Your task to perform on an android device: open app "Roku - Official Remote Control" (install if not already installed) and enter user name: "autumnal@gmail.com" and password: "stuffing" Image 0: 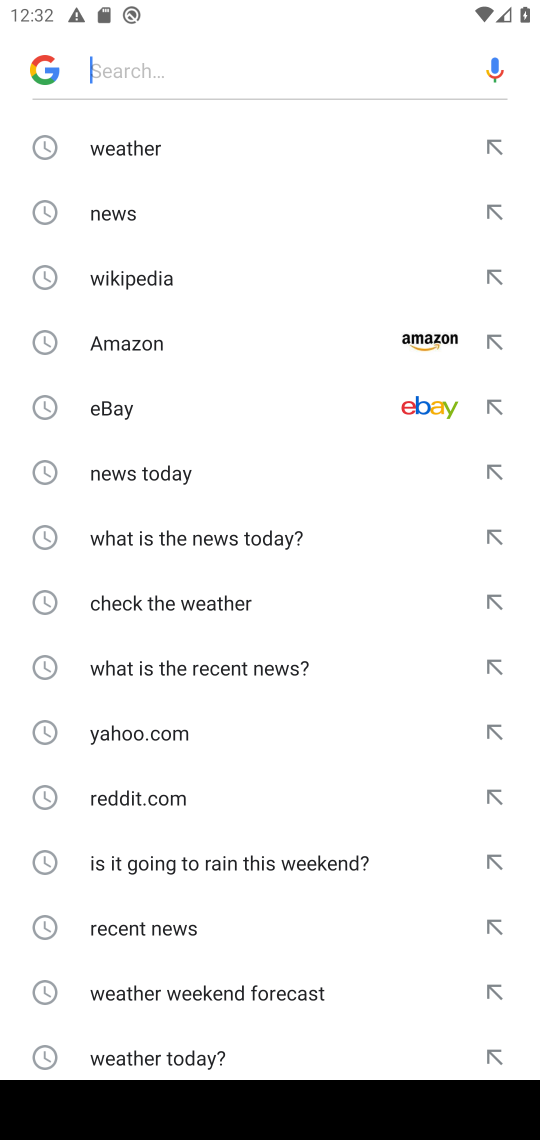
Step 0: task impossible